Your task to perform on an android device: see sites visited before in the chrome app Image 0: 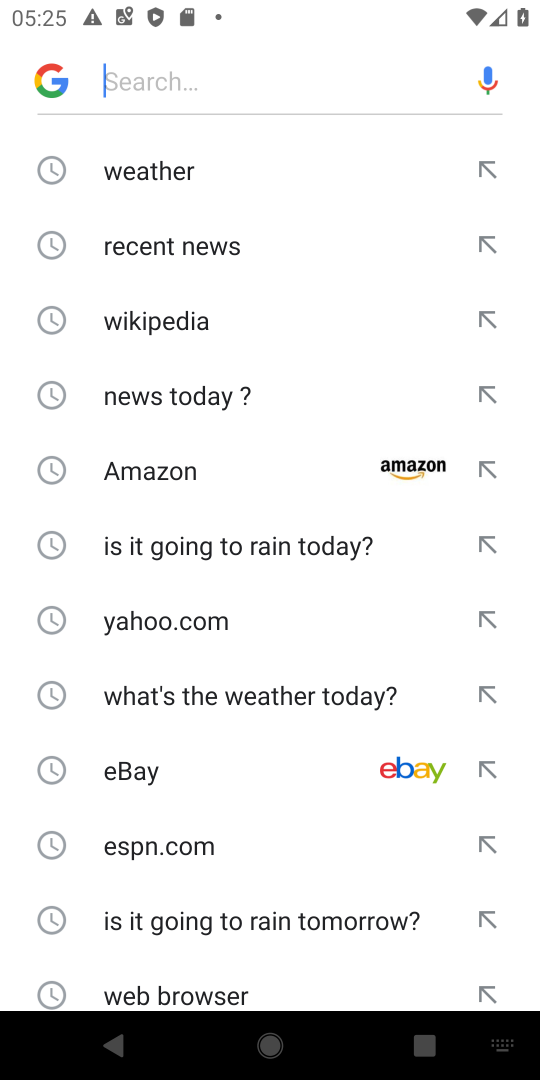
Step 0: press home button
Your task to perform on an android device: see sites visited before in the chrome app Image 1: 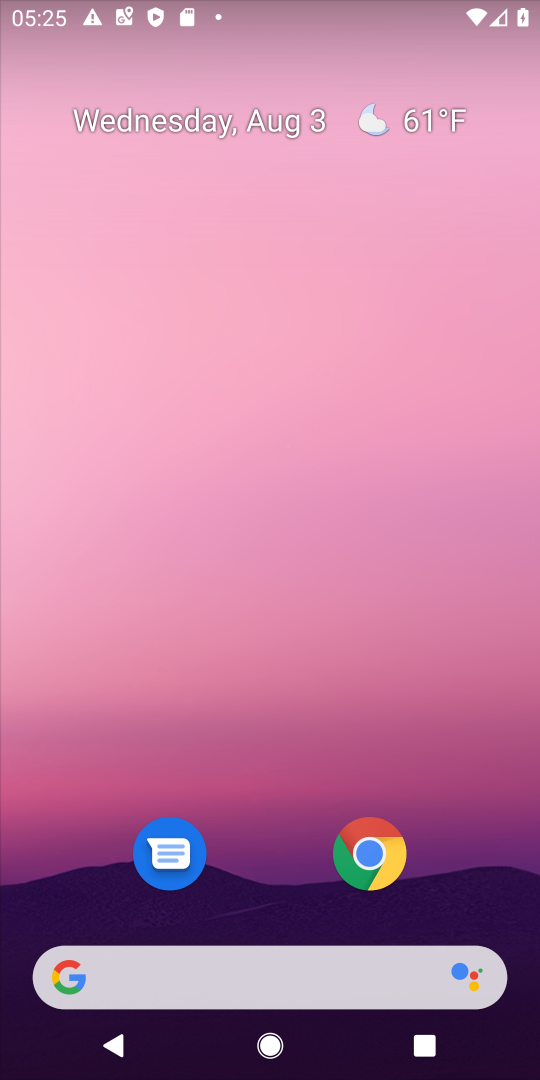
Step 1: click (364, 854)
Your task to perform on an android device: see sites visited before in the chrome app Image 2: 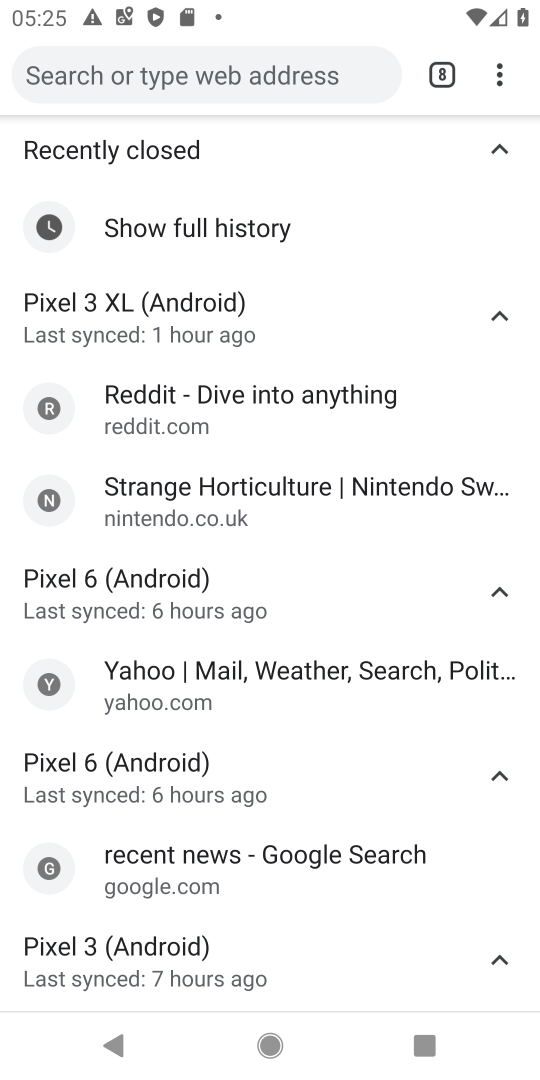
Step 2: click (498, 83)
Your task to perform on an android device: see sites visited before in the chrome app Image 3: 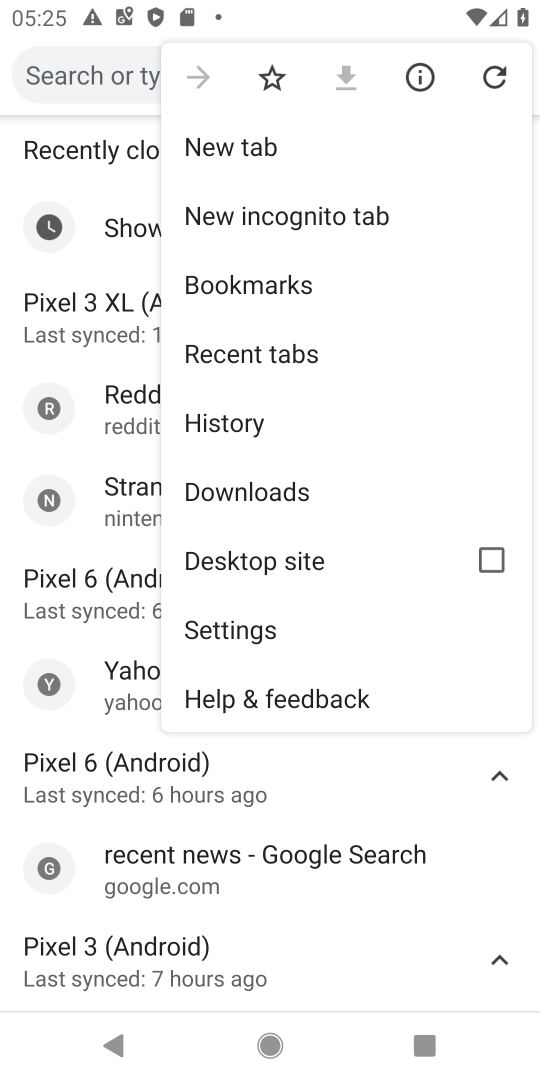
Step 3: click (246, 359)
Your task to perform on an android device: see sites visited before in the chrome app Image 4: 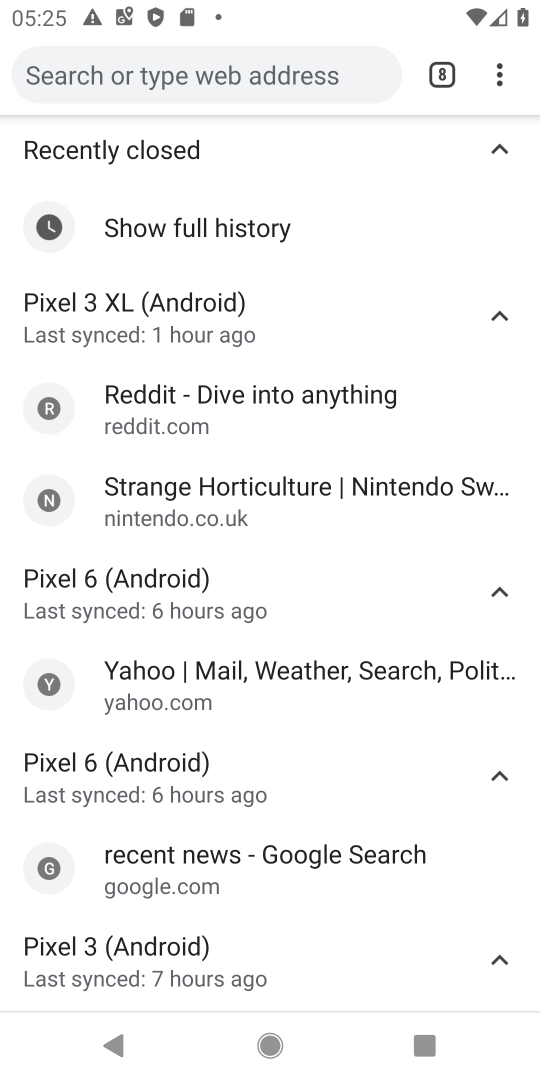
Step 4: task complete